Your task to perform on an android device: set the stopwatch Image 0: 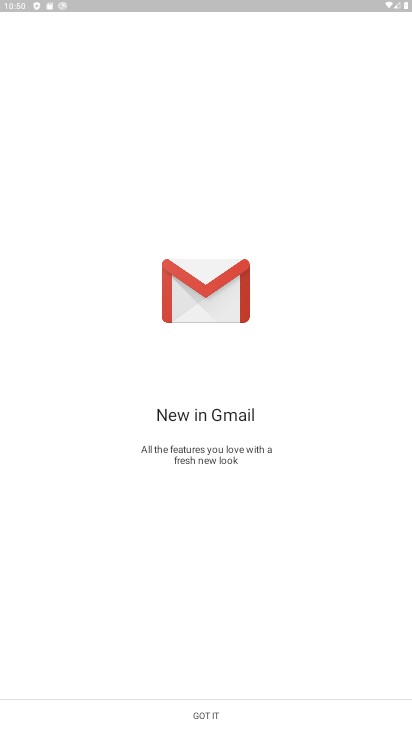
Step 0: press home button
Your task to perform on an android device: set the stopwatch Image 1: 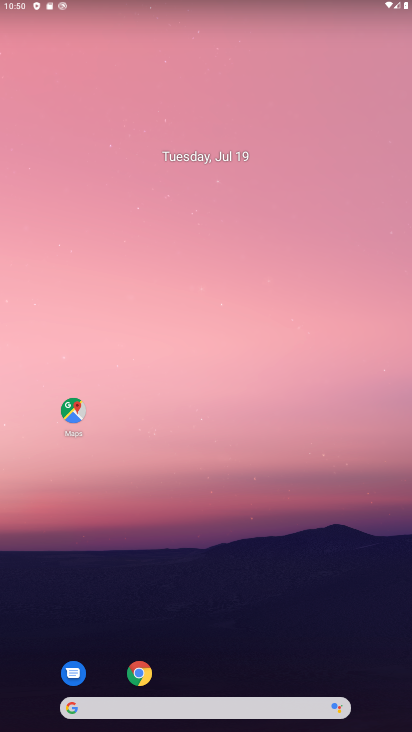
Step 1: drag from (200, 653) to (304, 127)
Your task to perform on an android device: set the stopwatch Image 2: 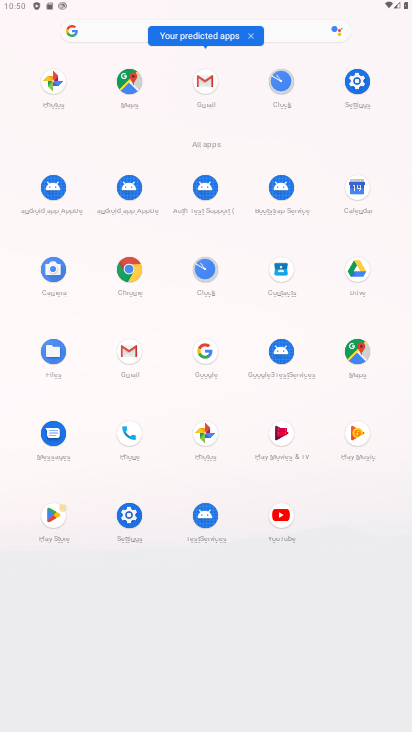
Step 2: click (207, 273)
Your task to perform on an android device: set the stopwatch Image 3: 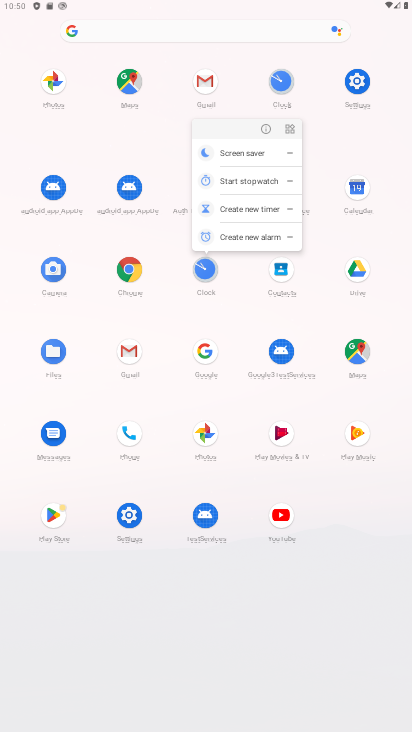
Step 3: click (206, 273)
Your task to perform on an android device: set the stopwatch Image 4: 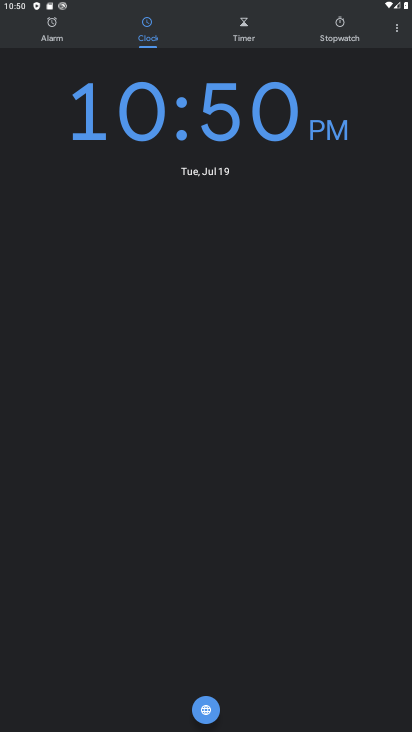
Step 4: click (334, 27)
Your task to perform on an android device: set the stopwatch Image 5: 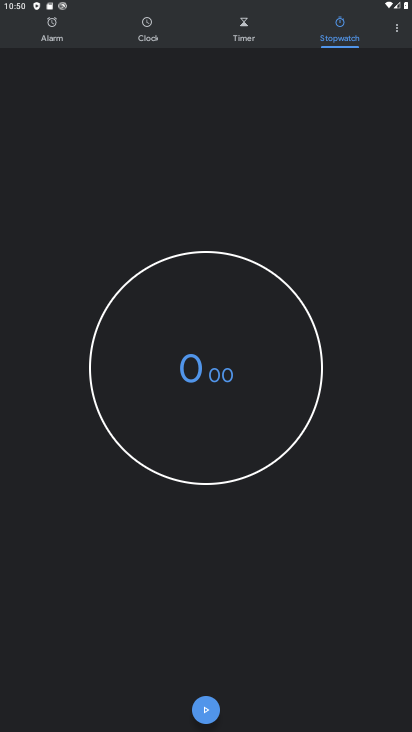
Step 5: click (217, 704)
Your task to perform on an android device: set the stopwatch Image 6: 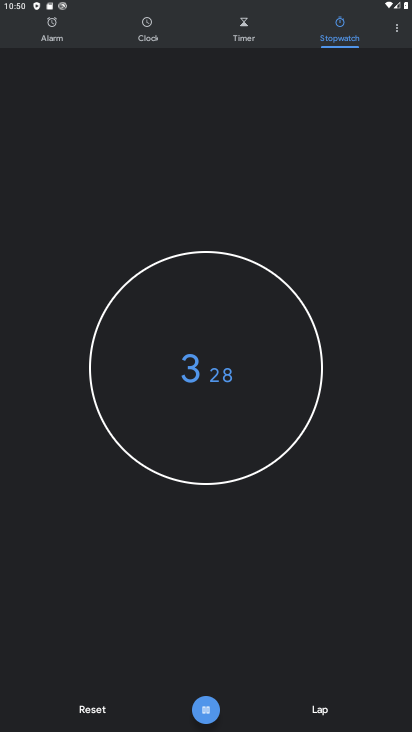
Step 6: task complete